Your task to perform on an android device: install app "Google Play Music" Image 0: 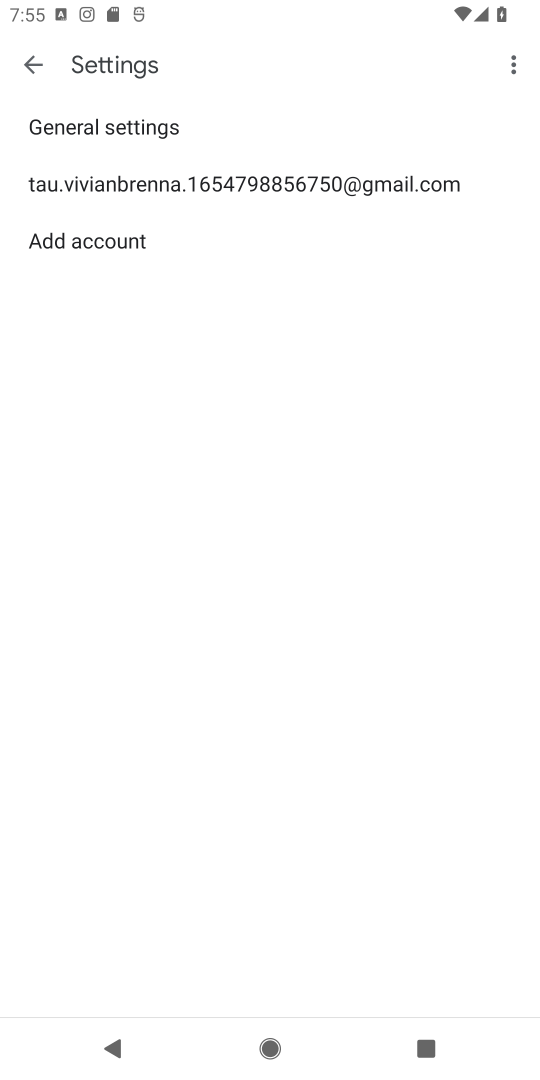
Step 0: press home button
Your task to perform on an android device: install app "Google Play Music" Image 1: 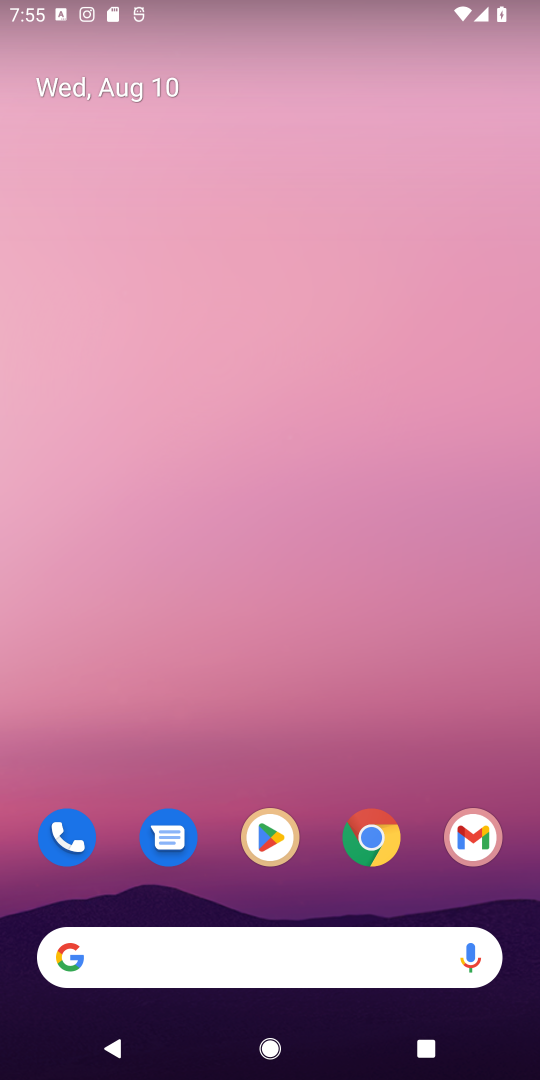
Step 1: click (267, 838)
Your task to perform on an android device: install app "Google Play Music" Image 2: 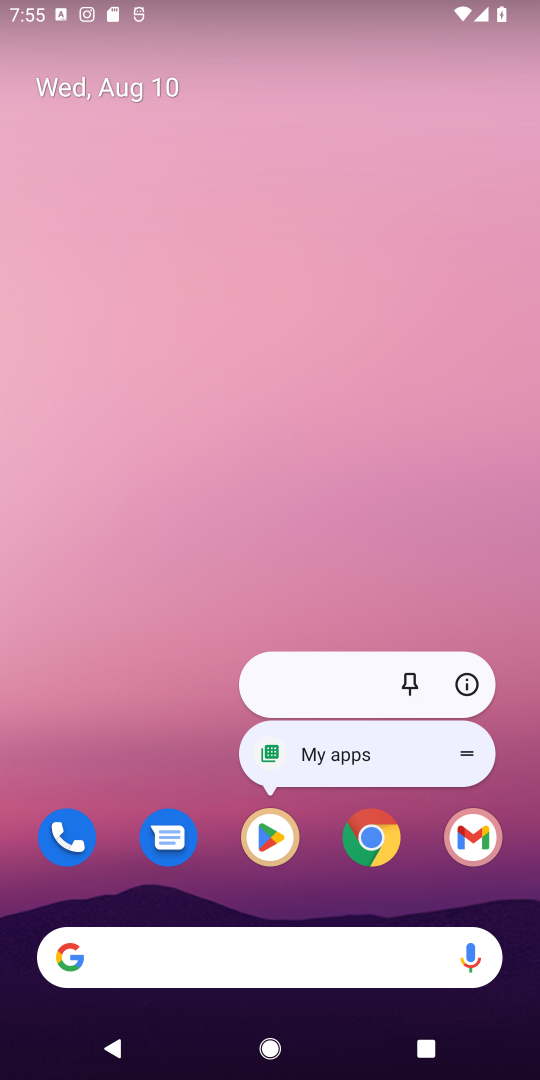
Step 2: click (267, 842)
Your task to perform on an android device: install app "Google Play Music" Image 3: 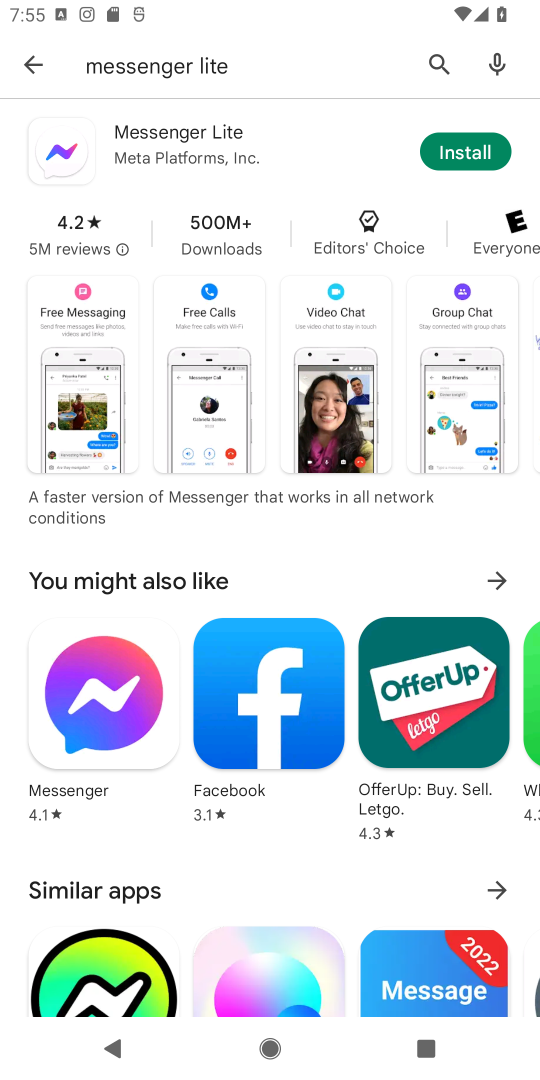
Step 3: click (430, 57)
Your task to perform on an android device: install app "Google Play Music" Image 4: 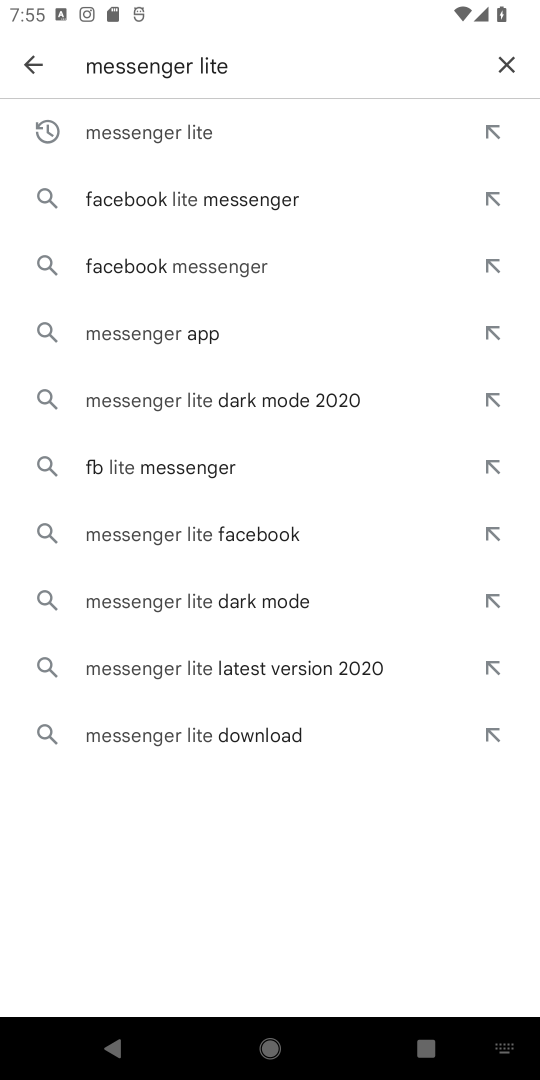
Step 4: click (513, 58)
Your task to perform on an android device: install app "Google Play Music" Image 5: 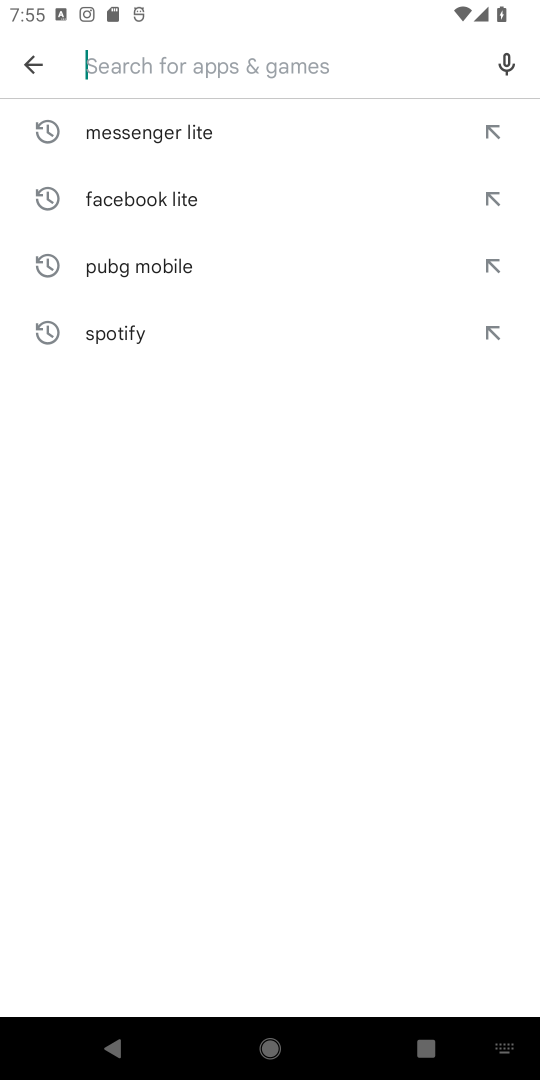
Step 5: type "Google Play Music"
Your task to perform on an android device: install app "Google Play Music" Image 6: 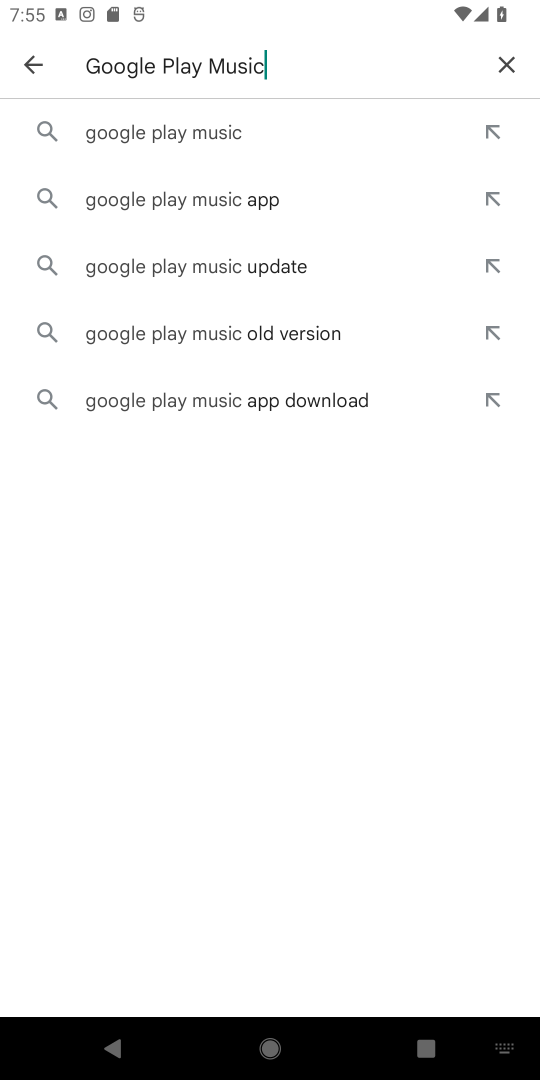
Step 6: click (212, 139)
Your task to perform on an android device: install app "Google Play Music" Image 7: 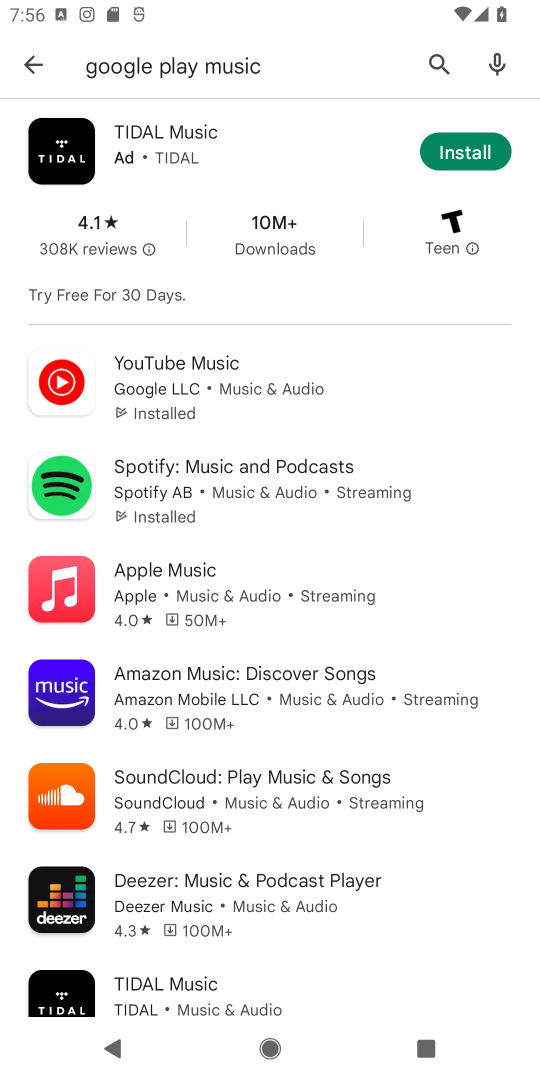
Step 7: task complete